Your task to perform on an android device: Open settings Image 0: 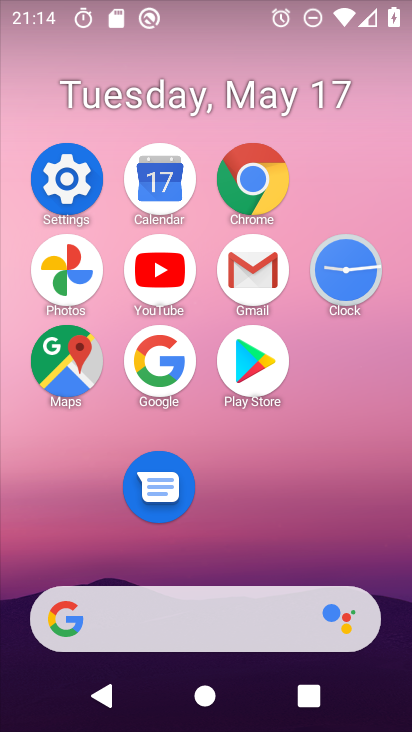
Step 0: click (80, 199)
Your task to perform on an android device: Open settings Image 1: 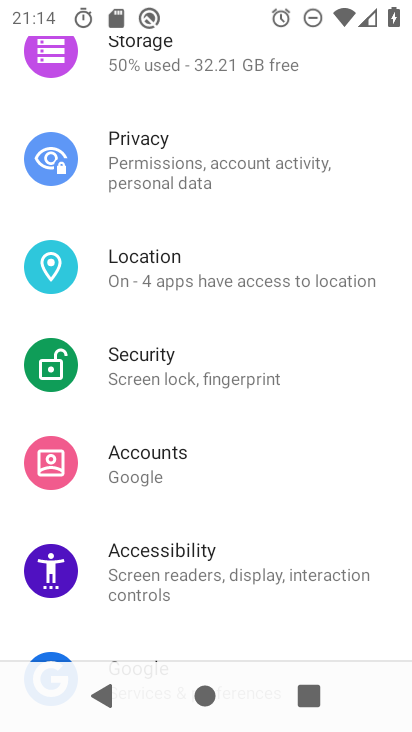
Step 1: task complete